Your task to perform on an android device: install app "Flipkart Online Shopping App" Image 0: 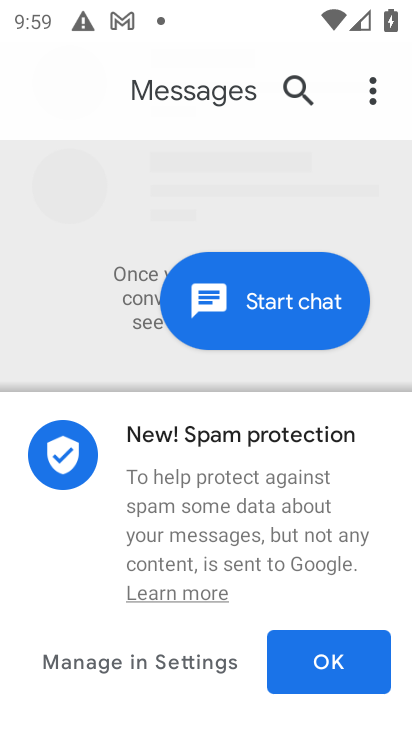
Step 0: press home button
Your task to perform on an android device: install app "Flipkart Online Shopping App" Image 1: 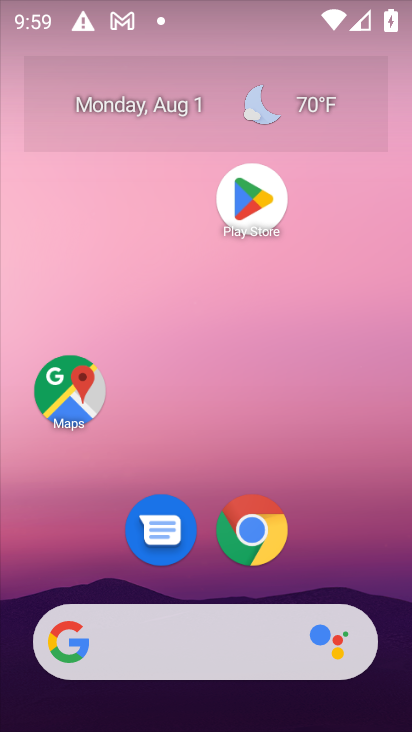
Step 1: click (252, 167)
Your task to perform on an android device: install app "Flipkart Online Shopping App" Image 2: 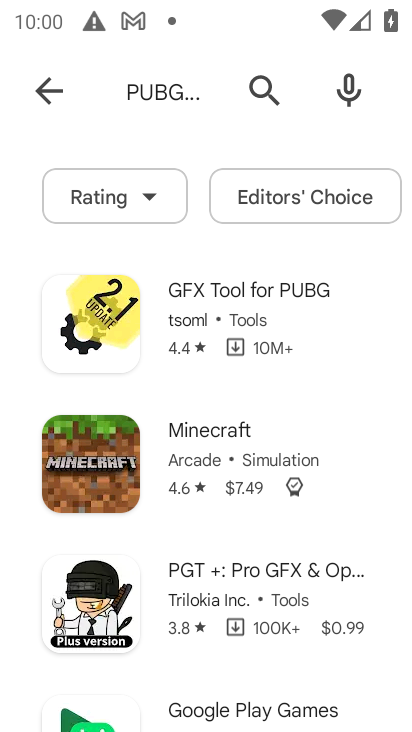
Step 2: click (267, 78)
Your task to perform on an android device: install app "Flipkart Online Shopping App" Image 3: 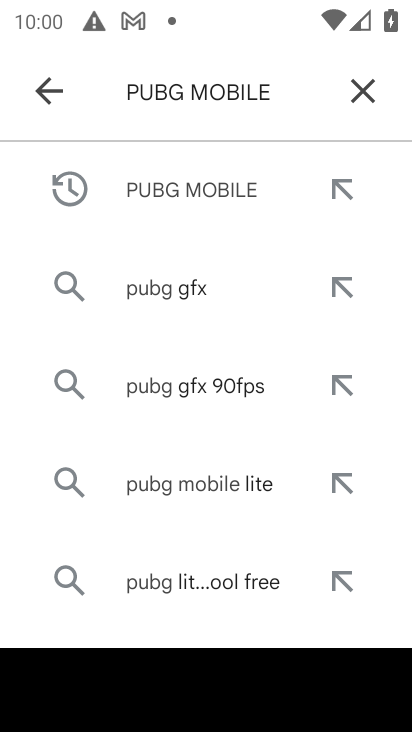
Step 3: click (363, 92)
Your task to perform on an android device: install app "Flipkart Online Shopping App" Image 4: 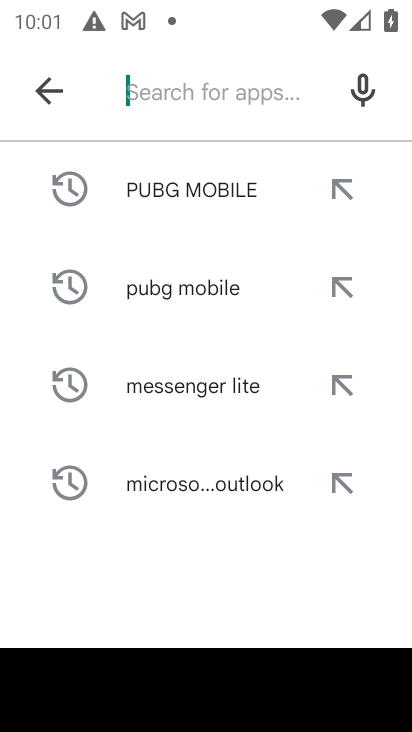
Step 4: type "Flipkart Online Shopping App"
Your task to perform on an android device: install app "Flipkart Online Shopping App" Image 5: 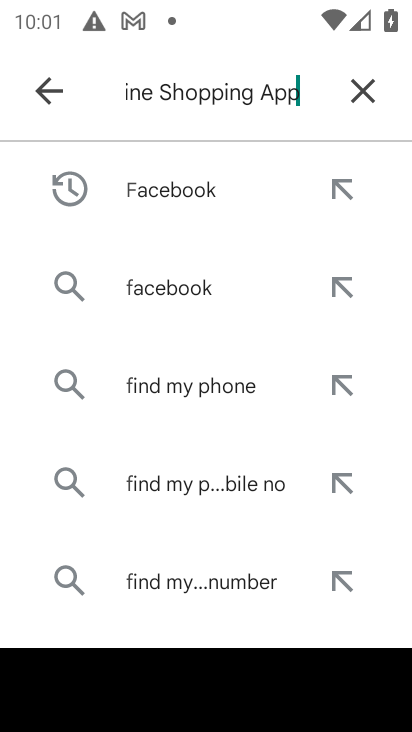
Step 5: type ""
Your task to perform on an android device: install app "Flipkart Online Shopping App" Image 6: 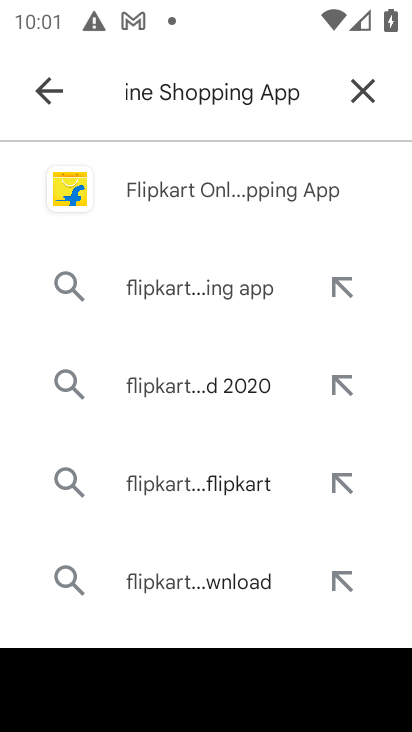
Step 6: click (300, 186)
Your task to perform on an android device: install app "Flipkart Online Shopping App" Image 7: 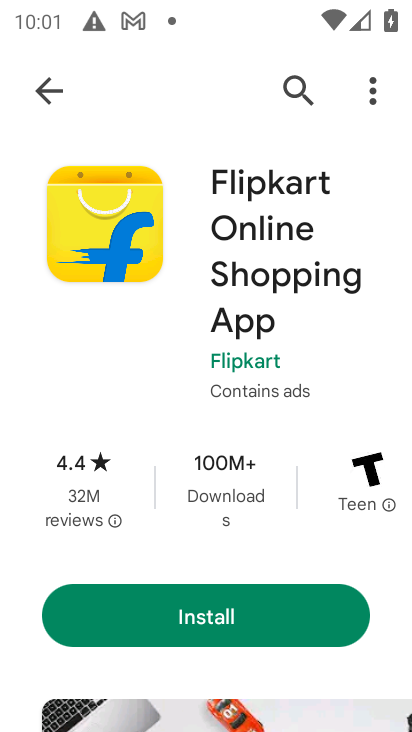
Step 7: click (245, 604)
Your task to perform on an android device: install app "Flipkart Online Shopping App" Image 8: 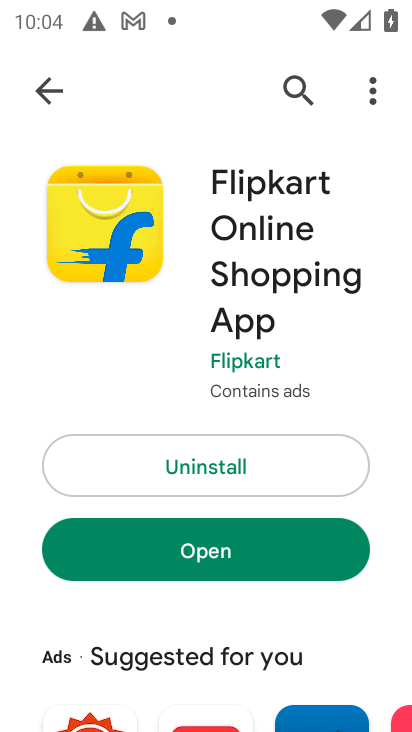
Step 8: task complete